Your task to perform on an android device: Is it going to rain today? Image 0: 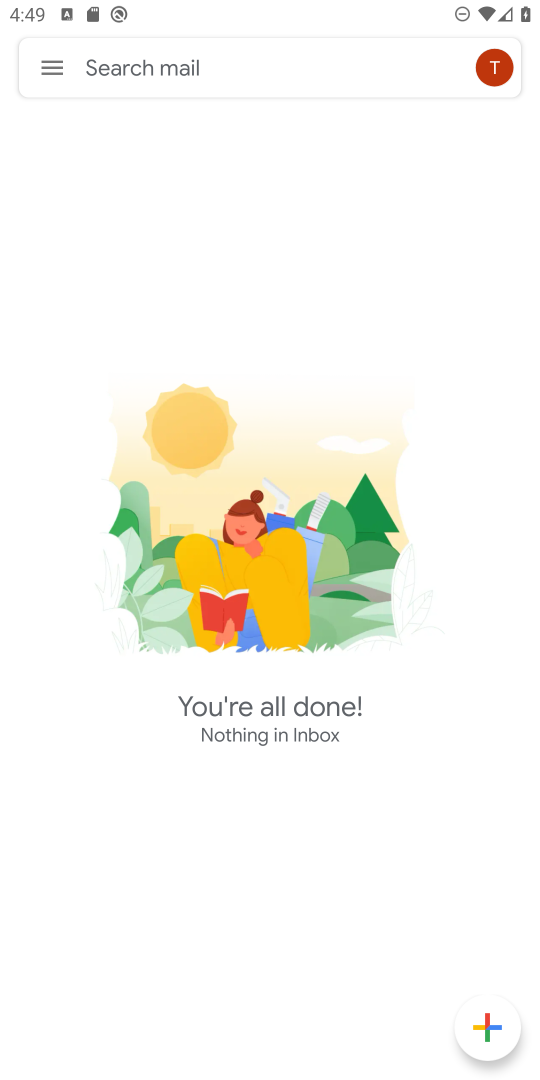
Step 0: press home button
Your task to perform on an android device: Is it going to rain today? Image 1: 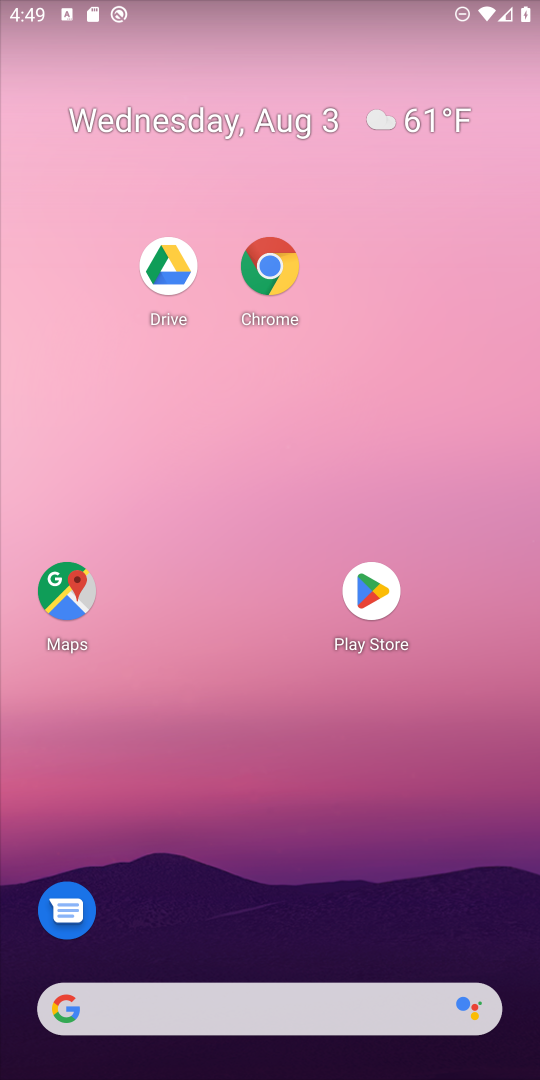
Step 1: drag from (70, 375) to (532, 426)
Your task to perform on an android device: Is it going to rain today? Image 2: 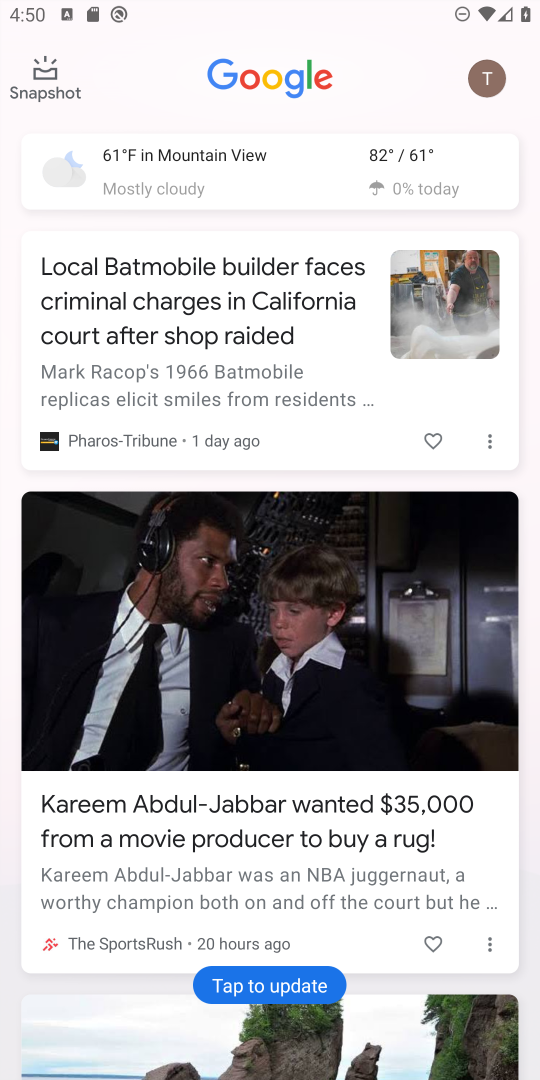
Step 2: click (267, 181)
Your task to perform on an android device: Is it going to rain today? Image 3: 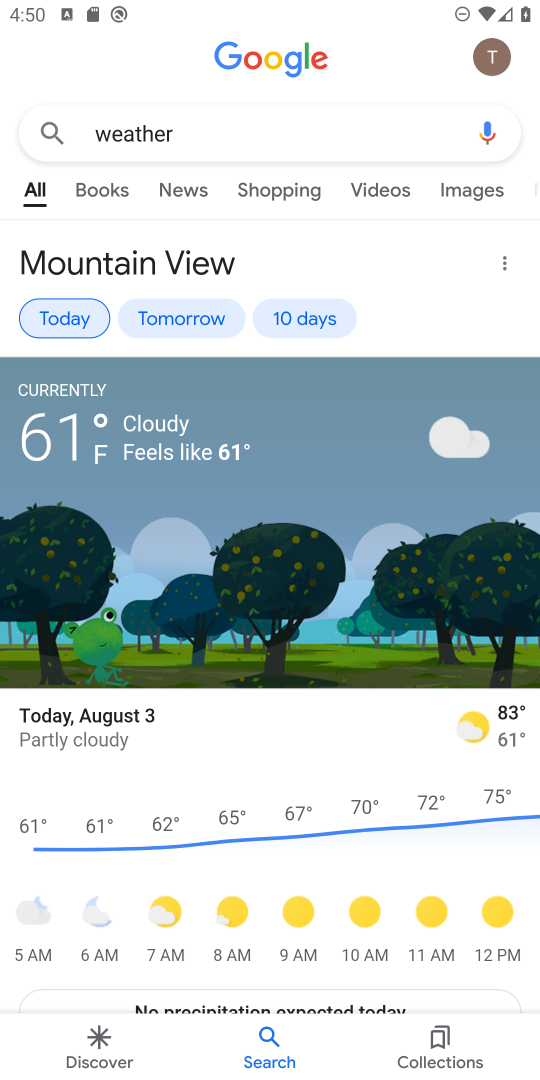
Step 3: task complete